Your task to perform on an android device: Check the news Image 0: 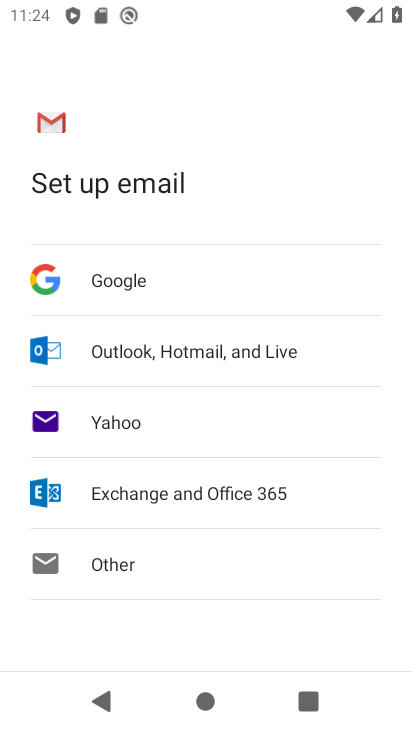
Step 0: press home button
Your task to perform on an android device: Check the news Image 1: 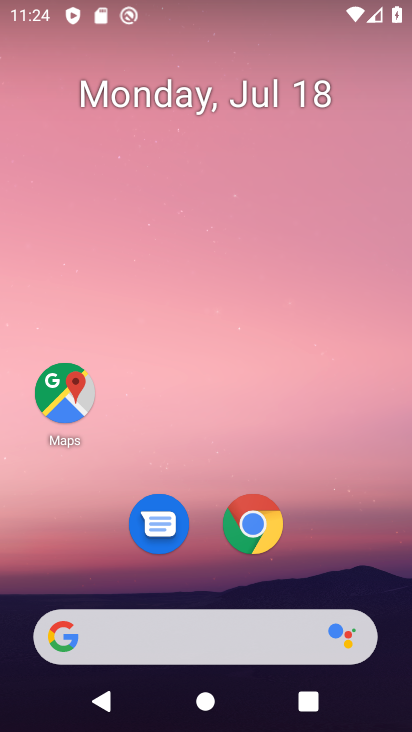
Step 1: click (212, 651)
Your task to perform on an android device: Check the news Image 2: 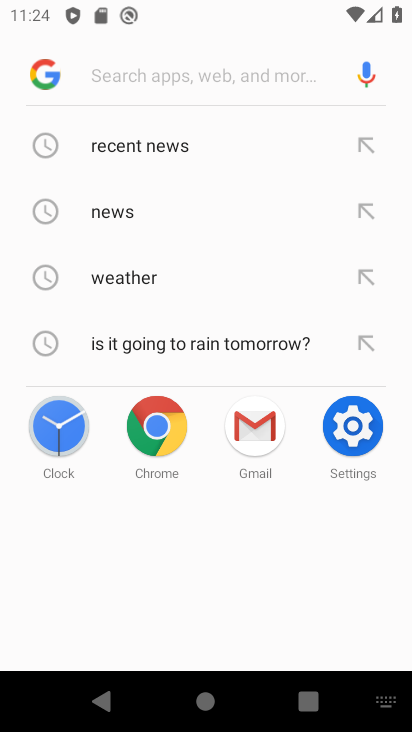
Step 2: click (129, 207)
Your task to perform on an android device: Check the news Image 3: 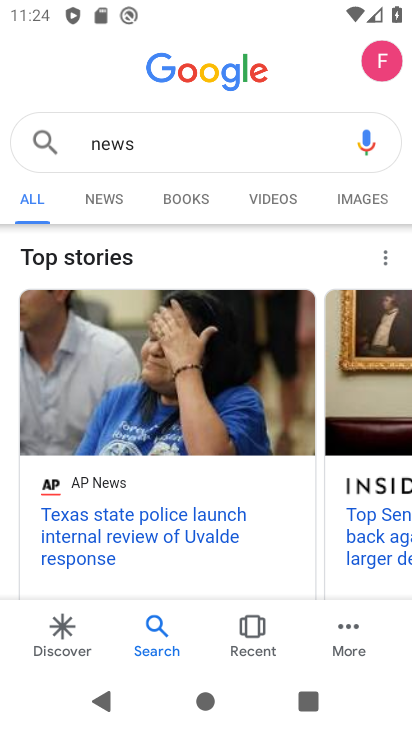
Step 3: click (104, 191)
Your task to perform on an android device: Check the news Image 4: 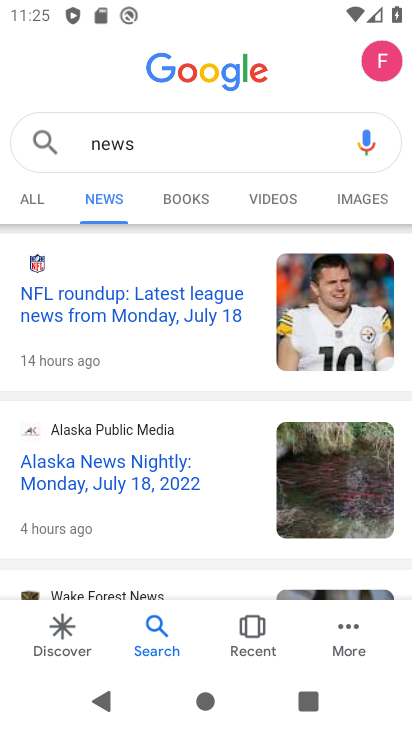
Step 4: task complete